Your task to perform on an android device: Open ESPN.com Image 0: 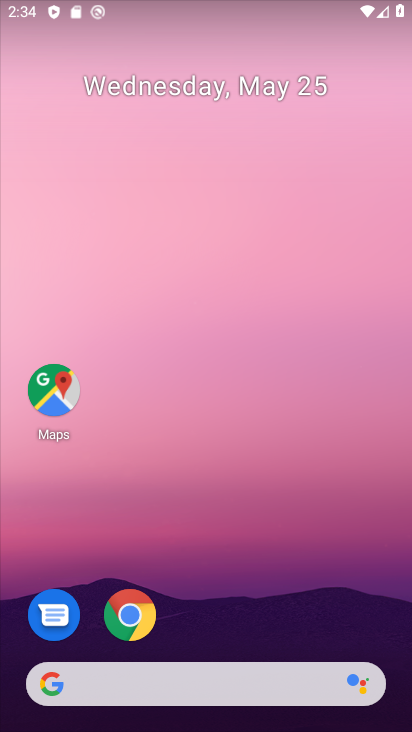
Step 0: click (125, 611)
Your task to perform on an android device: Open ESPN.com Image 1: 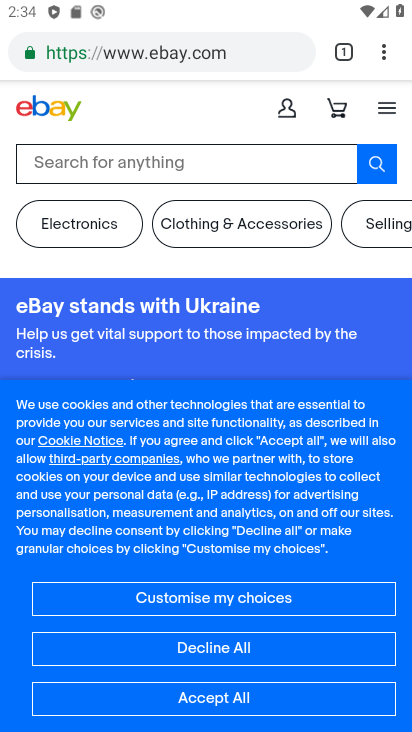
Step 1: click (167, 50)
Your task to perform on an android device: Open ESPN.com Image 2: 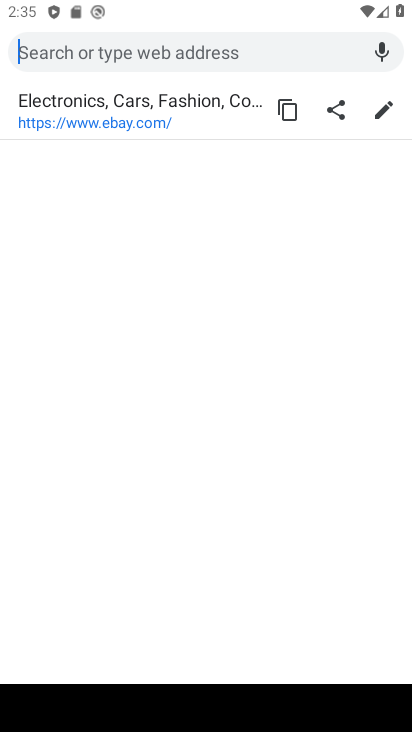
Step 2: type "espn.com"
Your task to perform on an android device: Open ESPN.com Image 3: 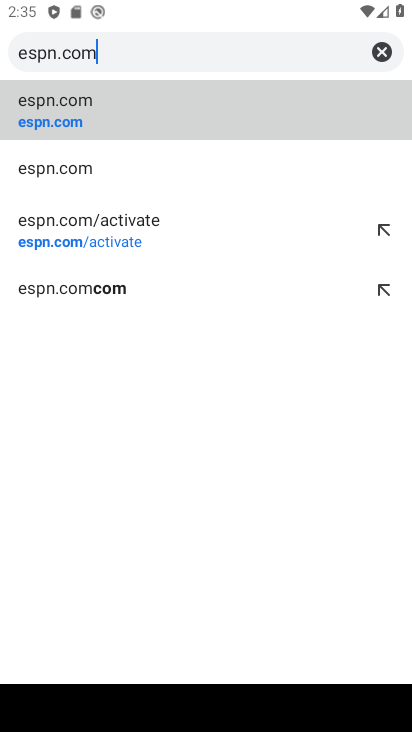
Step 3: click (96, 110)
Your task to perform on an android device: Open ESPN.com Image 4: 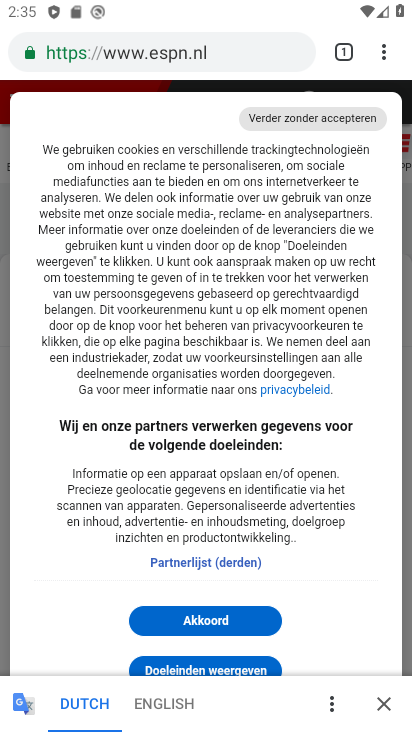
Step 4: task complete